Your task to perform on an android device: What's the weather? Image 0: 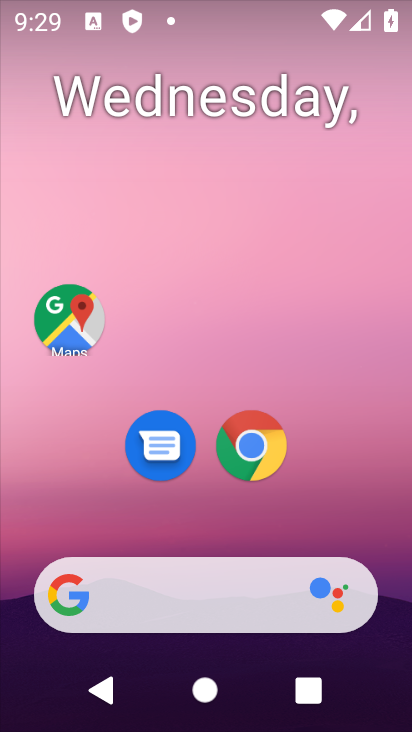
Step 0: drag from (353, 462) to (397, 16)
Your task to perform on an android device: What's the weather? Image 1: 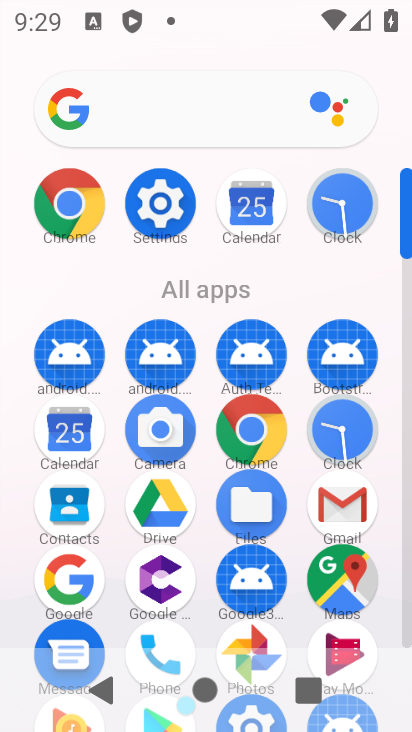
Step 1: drag from (383, 570) to (403, 264)
Your task to perform on an android device: What's the weather? Image 2: 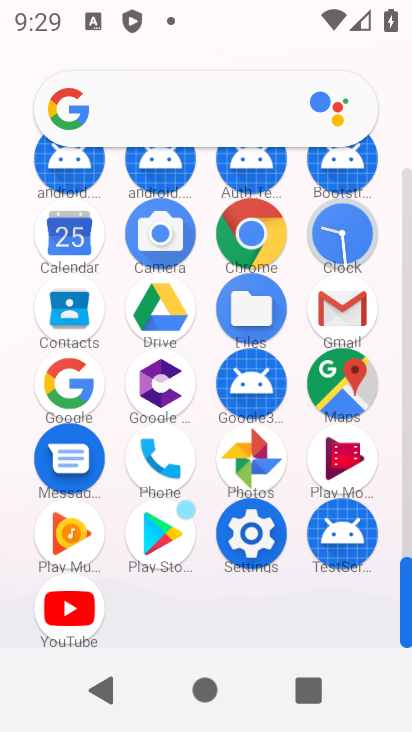
Step 2: click (96, 383)
Your task to perform on an android device: What's the weather? Image 3: 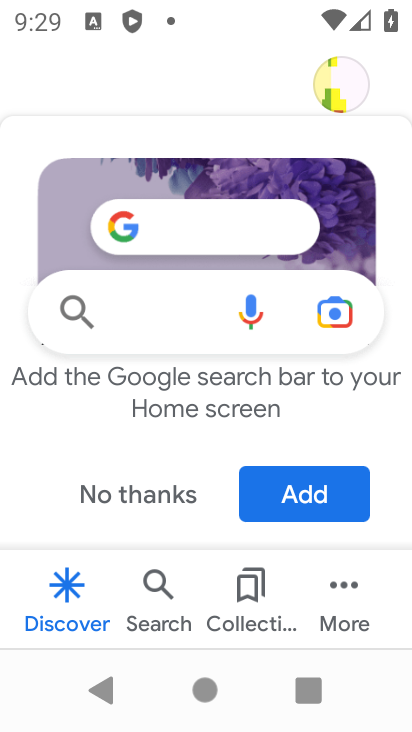
Step 3: drag from (174, 525) to (253, 180)
Your task to perform on an android device: What's the weather? Image 4: 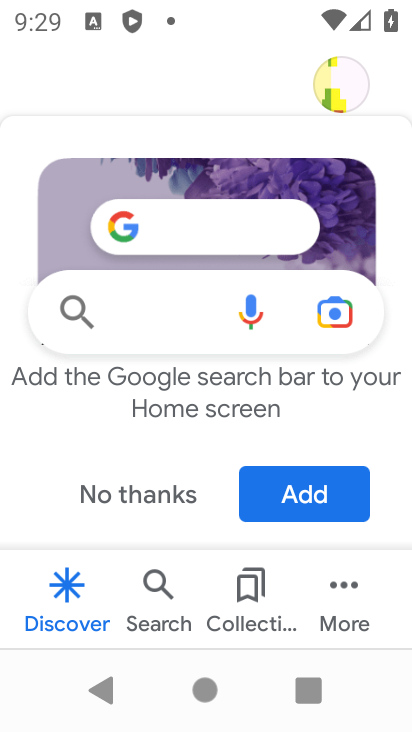
Step 4: drag from (405, 506) to (395, 213)
Your task to perform on an android device: What's the weather? Image 5: 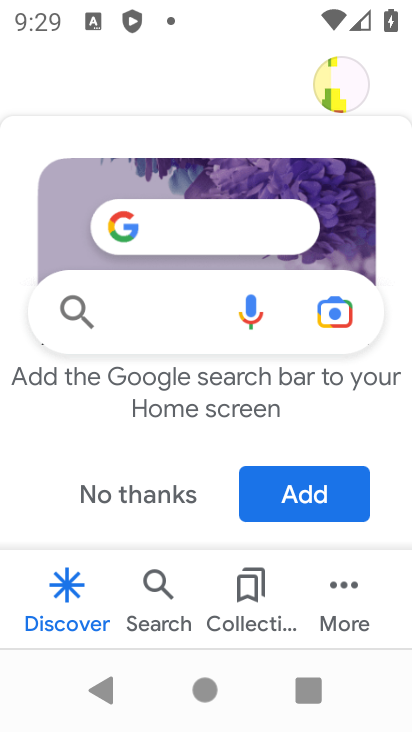
Step 5: drag from (134, 483) to (225, 78)
Your task to perform on an android device: What's the weather? Image 6: 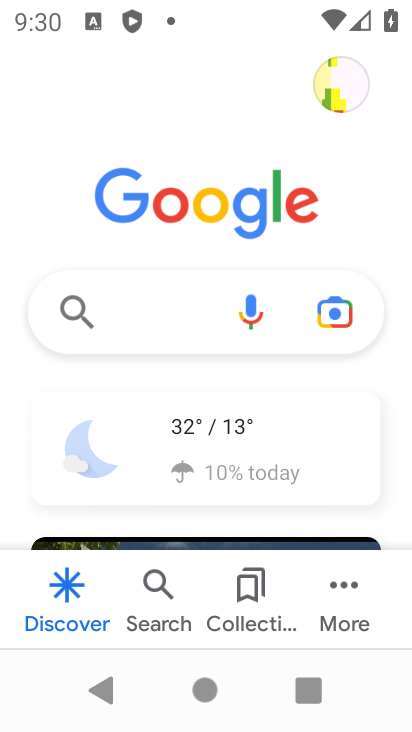
Step 6: click (217, 441)
Your task to perform on an android device: What's the weather? Image 7: 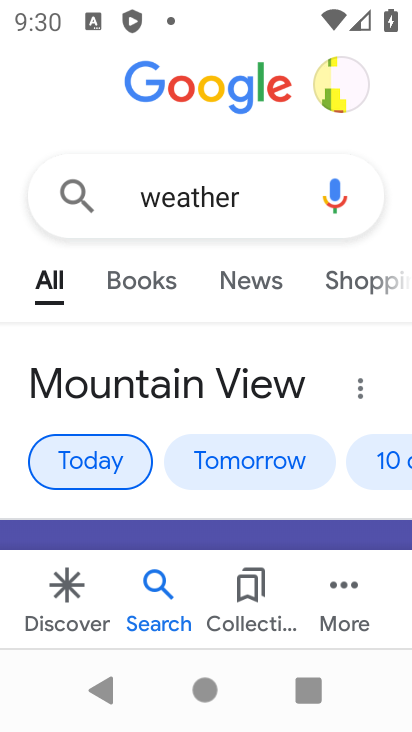
Step 7: task complete